Your task to perform on an android device: turn on wifi Image 0: 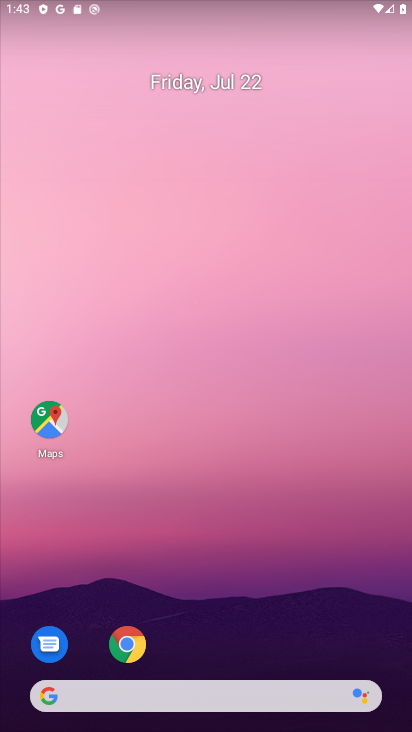
Step 0: drag from (271, 640) to (151, 199)
Your task to perform on an android device: turn on wifi Image 1: 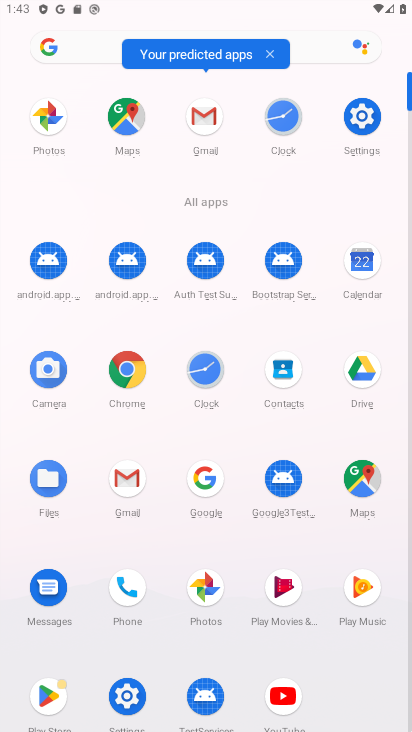
Step 1: click (353, 119)
Your task to perform on an android device: turn on wifi Image 2: 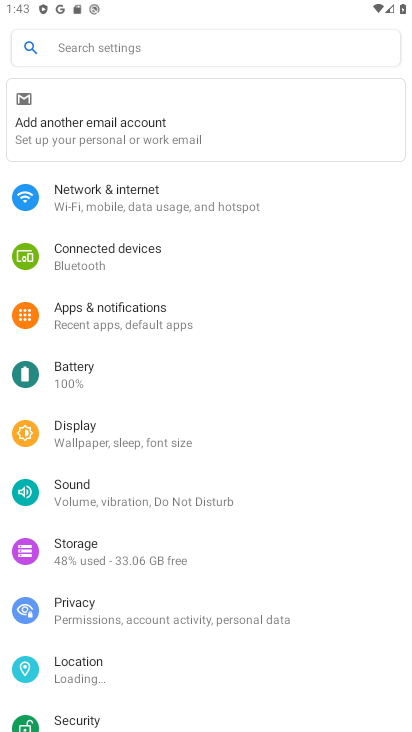
Step 2: click (149, 212)
Your task to perform on an android device: turn on wifi Image 3: 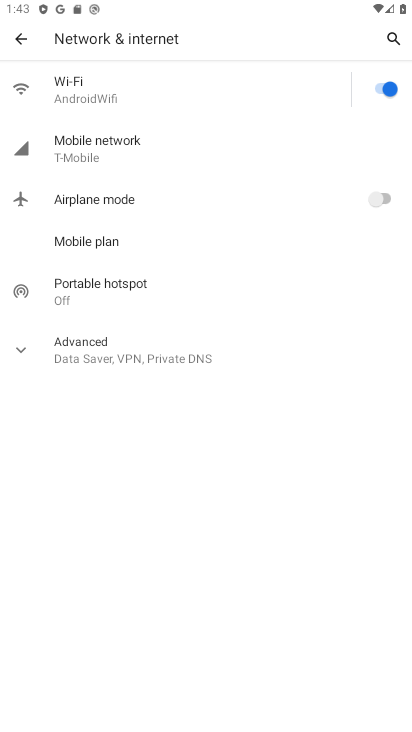
Step 3: task complete